Your task to perform on an android device: What's the weather going to be this weekend? Image 0: 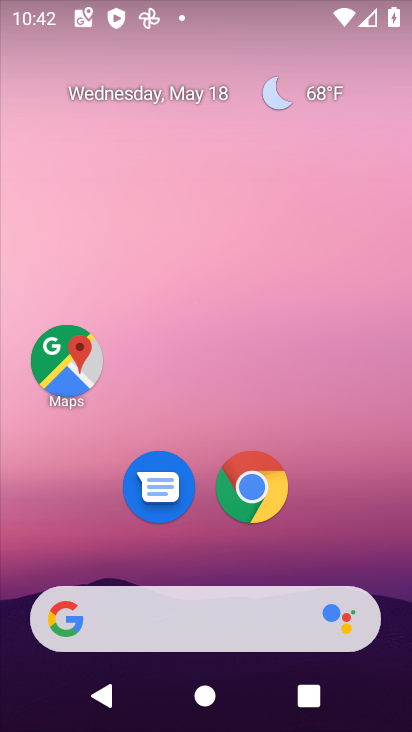
Step 0: drag from (394, 518) to (342, 179)
Your task to perform on an android device: What's the weather going to be this weekend? Image 1: 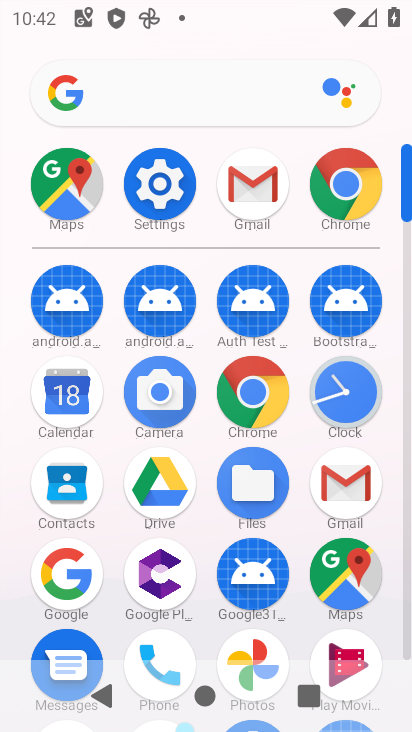
Step 1: click (263, 391)
Your task to perform on an android device: What's the weather going to be this weekend? Image 2: 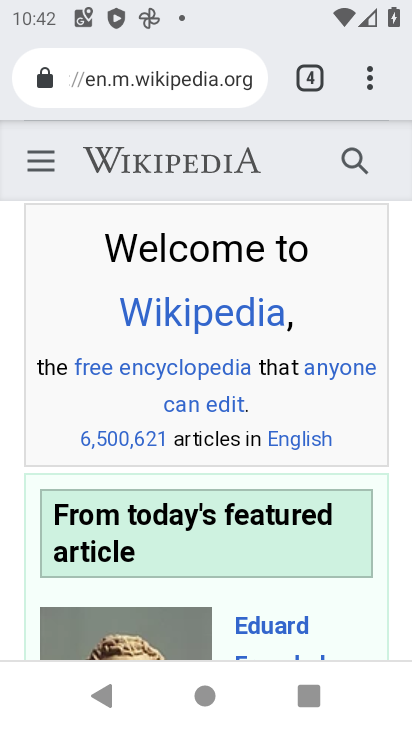
Step 2: click (167, 81)
Your task to perform on an android device: What's the weather going to be this weekend? Image 3: 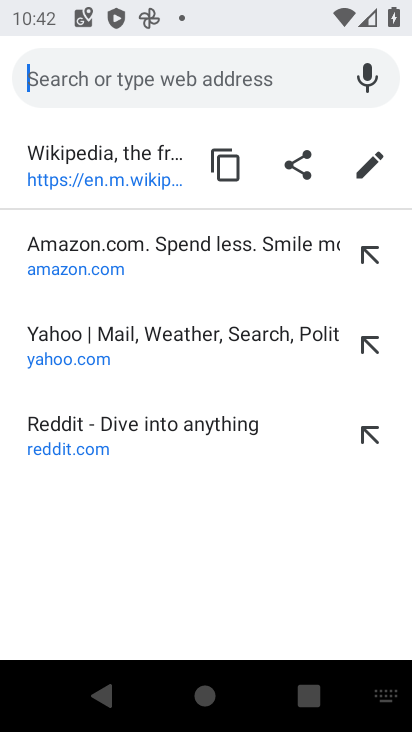
Step 3: type "what's the weather going to ne this weekend"
Your task to perform on an android device: What's the weather going to be this weekend? Image 4: 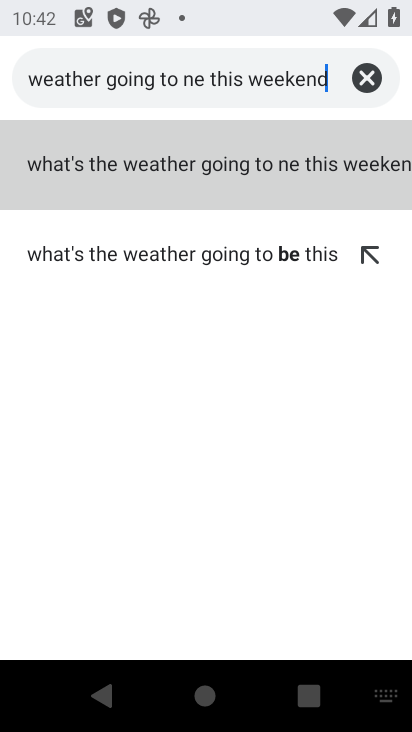
Step 4: click (240, 269)
Your task to perform on an android device: What's the weather going to be this weekend? Image 5: 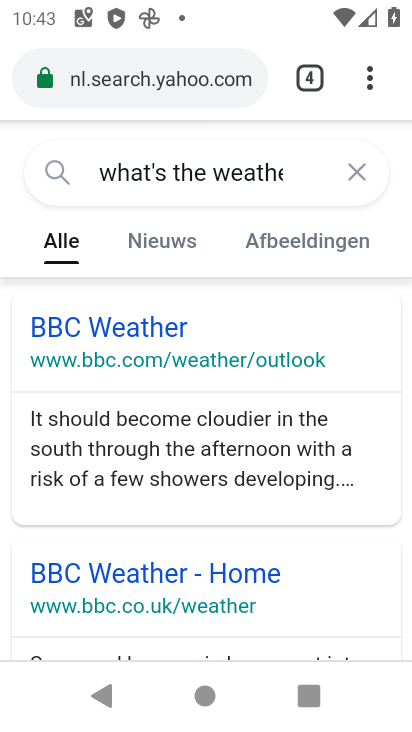
Step 5: task complete